Your task to perform on an android device: What's the weather going to be this weekend? Image 0: 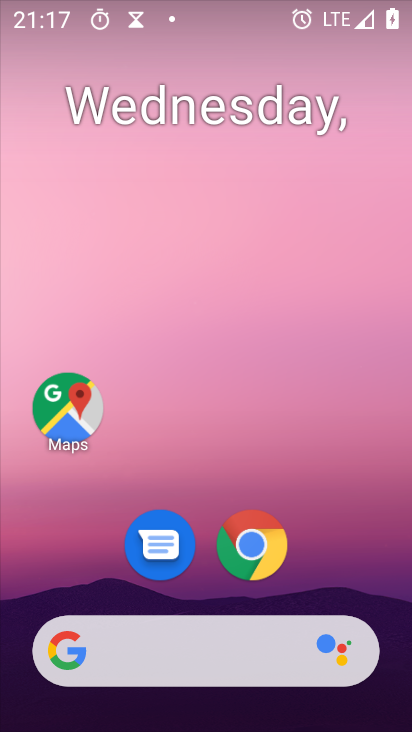
Step 0: press home button
Your task to perform on an android device: What's the weather going to be this weekend? Image 1: 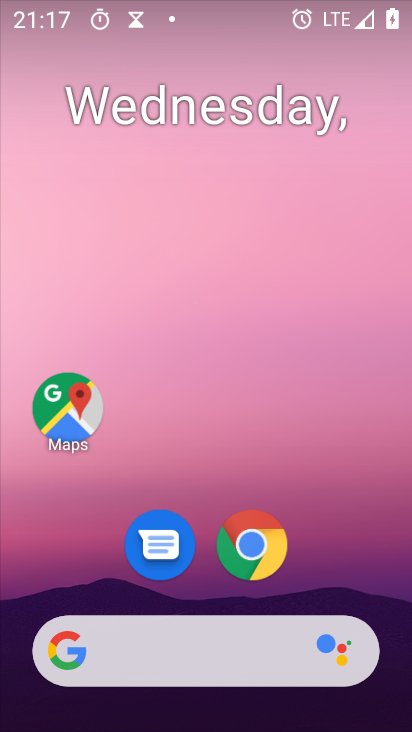
Step 1: click (75, 653)
Your task to perform on an android device: What's the weather going to be this weekend? Image 2: 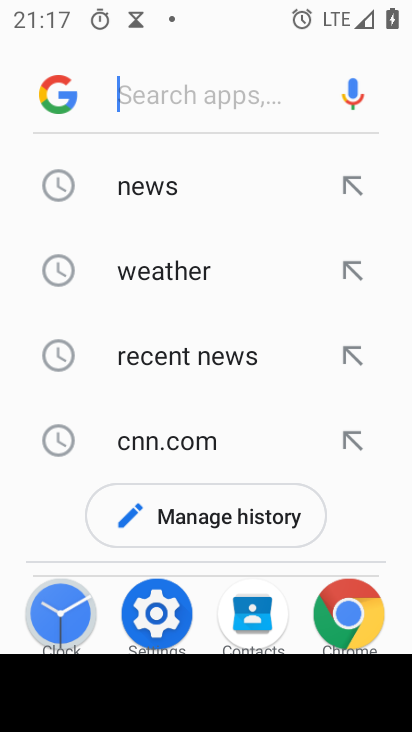
Step 2: click (188, 274)
Your task to perform on an android device: What's the weather going to be this weekend? Image 3: 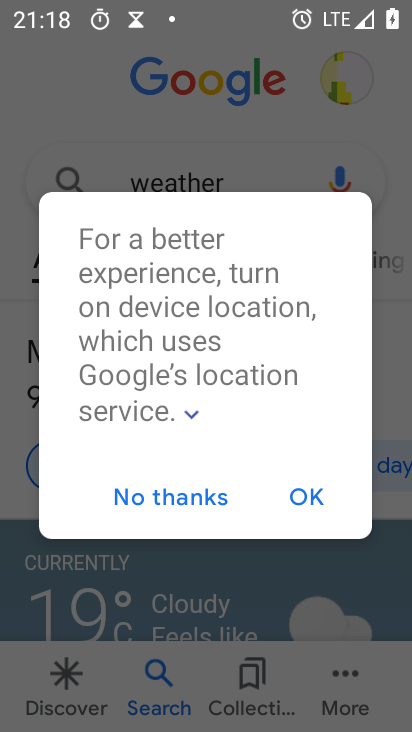
Step 3: click (309, 500)
Your task to perform on an android device: What's the weather going to be this weekend? Image 4: 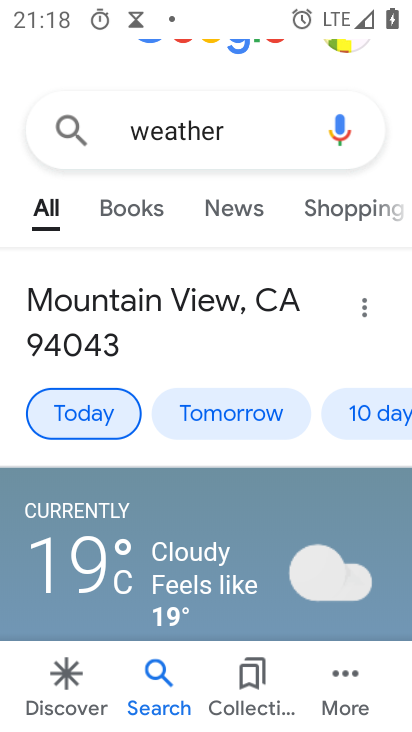
Step 4: click (375, 415)
Your task to perform on an android device: What's the weather going to be this weekend? Image 5: 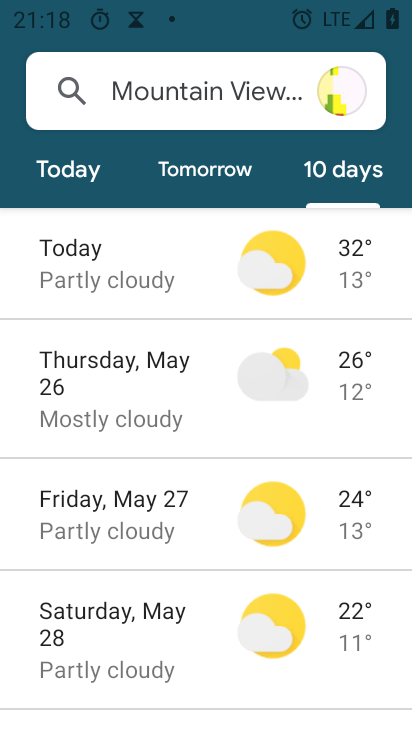
Step 5: click (158, 631)
Your task to perform on an android device: What's the weather going to be this weekend? Image 6: 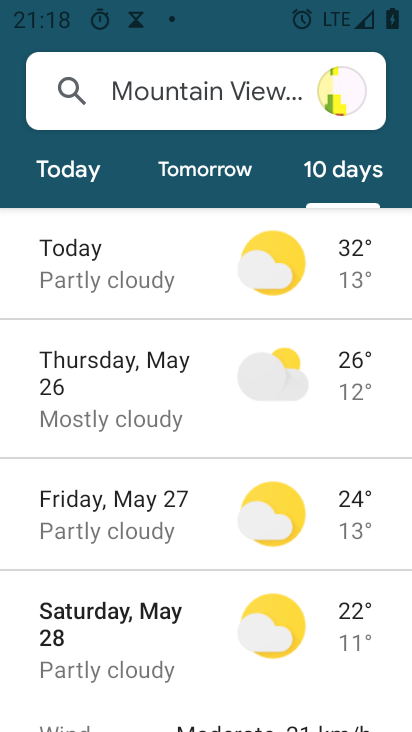
Step 6: task complete